Your task to perform on an android device: turn off translation in the chrome app Image 0: 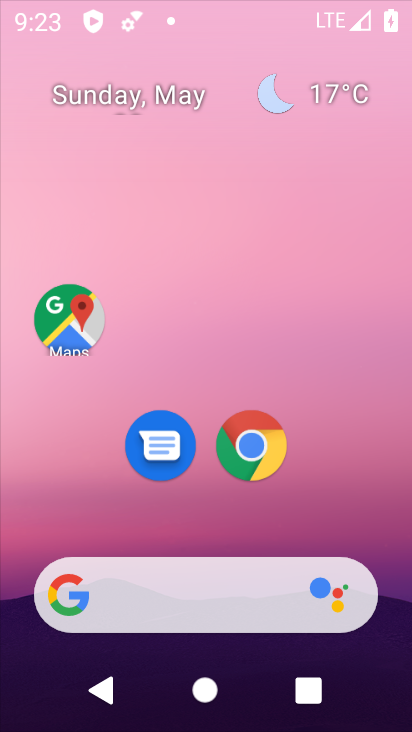
Step 0: click (288, 115)
Your task to perform on an android device: turn off translation in the chrome app Image 1: 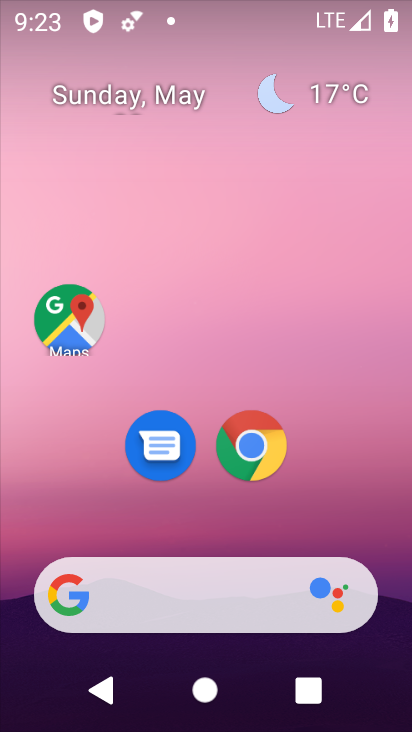
Step 1: drag from (207, 530) to (270, 127)
Your task to perform on an android device: turn off translation in the chrome app Image 2: 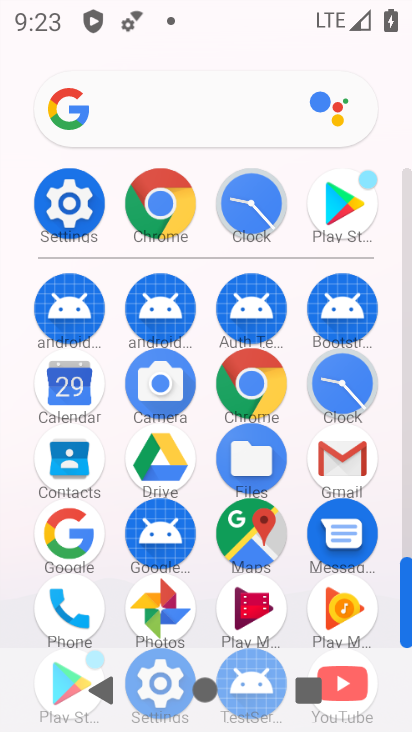
Step 2: click (249, 388)
Your task to perform on an android device: turn off translation in the chrome app Image 3: 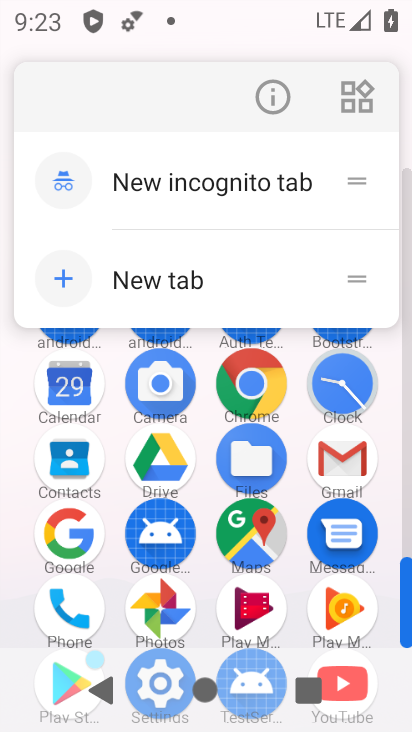
Step 3: click (288, 97)
Your task to perform on an android device: turn off translation in the chrome app Image 4: 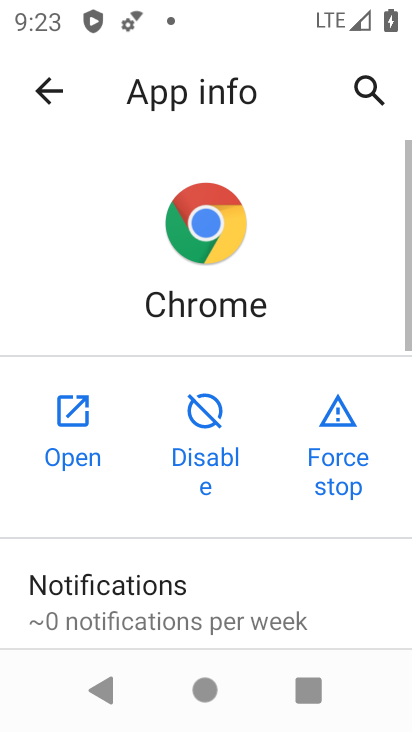
Step 4: click (64, 430)
Your task to perform on an android device: turn off translation in the chrome app Image 5: 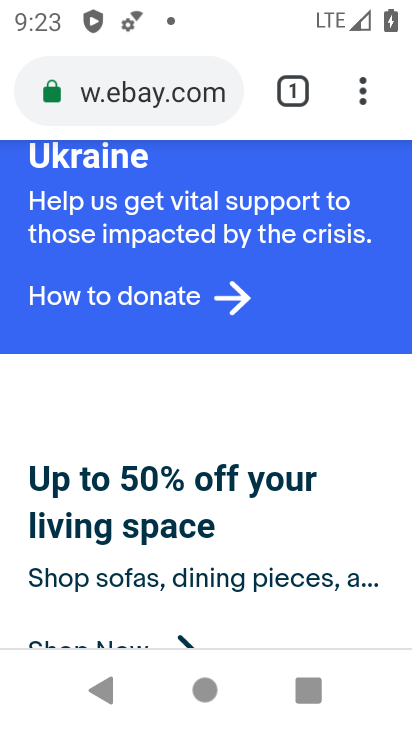
Step 5: drag from (365, 89) to (148, 472)
Your task to perform on an android device: turn off translation in the chrome app Image 6: 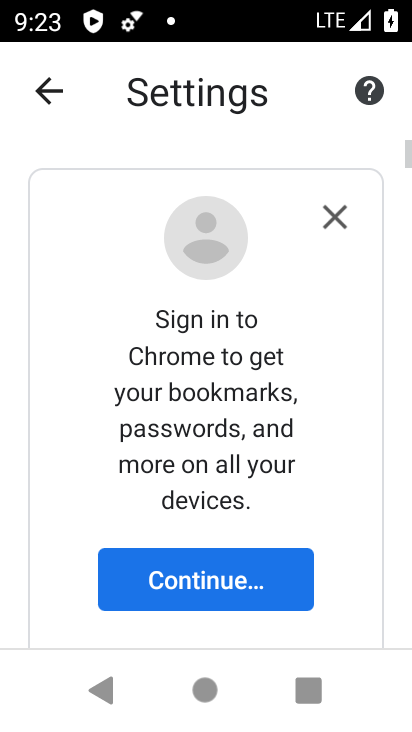
Step 6: drag from (214, 525) to (241, 10)
Your task to perform on an android device: turn off translation in the chrome app Image 7: 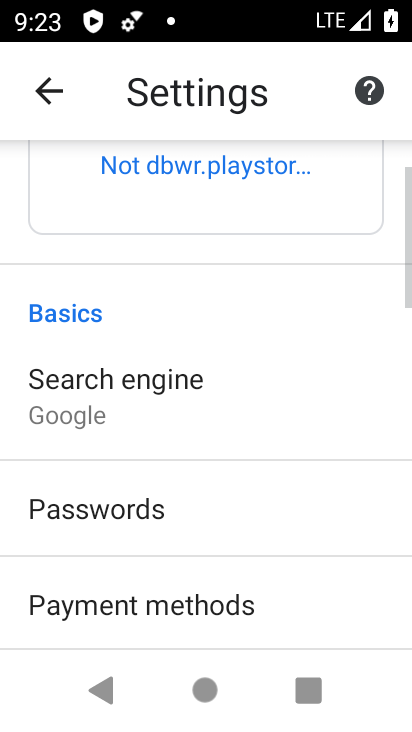
Step 7: drag from (193, 528) to (256, 58)
Your task to perform on an android device: turn off translation in the chrome app Image 8: 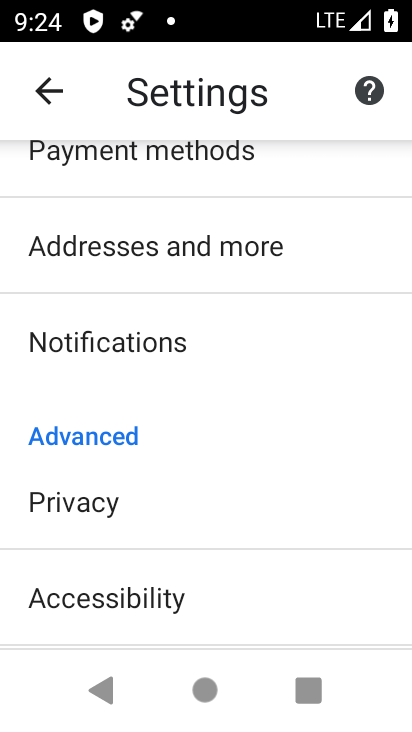
Step 8: drag from (178, 562) to (247, 194)
Your task to perform on an android device: turn off translation in the chrome app Image 9: 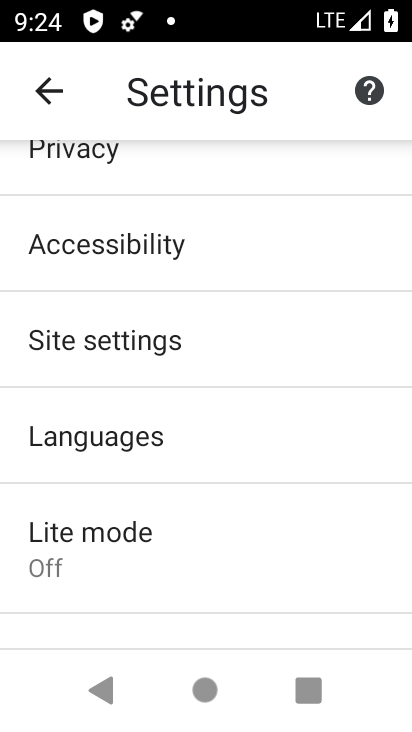
Step 9: click (151, 445)
Your task to perform on an android device: turn off translation in the chrome app Image 10: 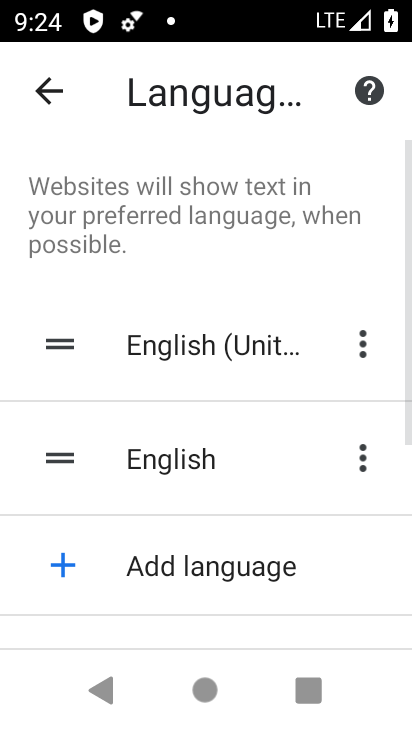
Step 10: drag from (205, 571) to (317, 73)
Your task to perform on an android device: turn off translation in the chrome app Image 11: 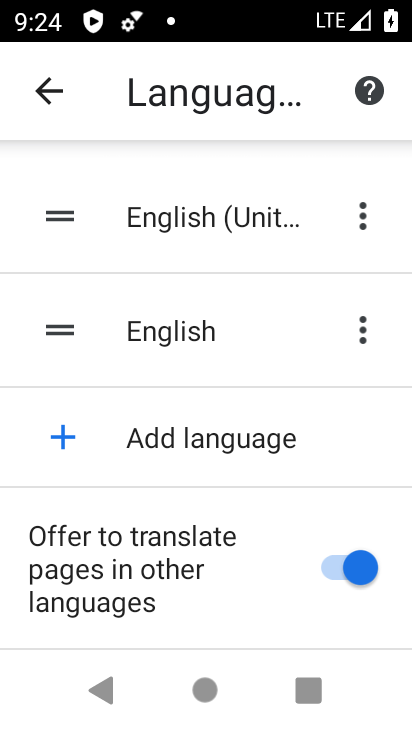
Step 11: click (336, 555)
Your task to perform on an android device: turn off translation in the chrome app Image 12: 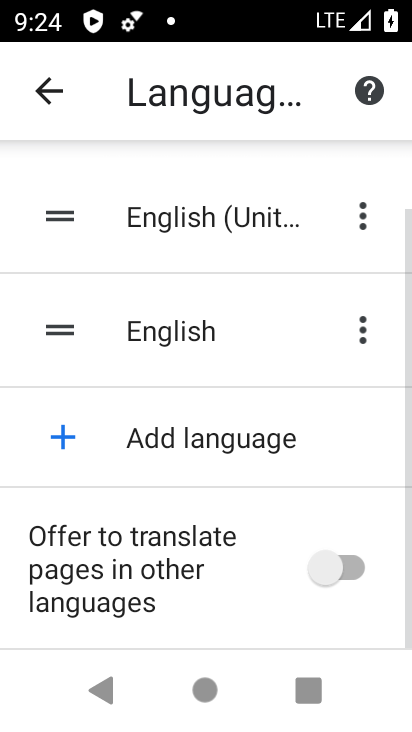
Step 12: task complete